Your task to perform on an android device: Search for sushi restaurants on Maps Image 0: 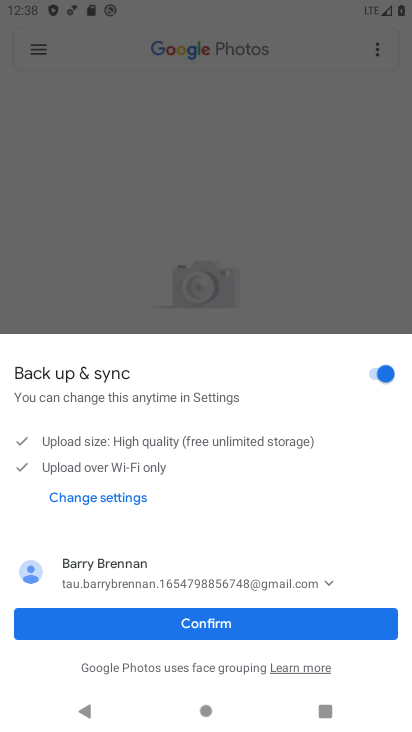
Step 0: press home button
Your task to perform on an android device: Search for sushi restaurants on Maps Image 1: 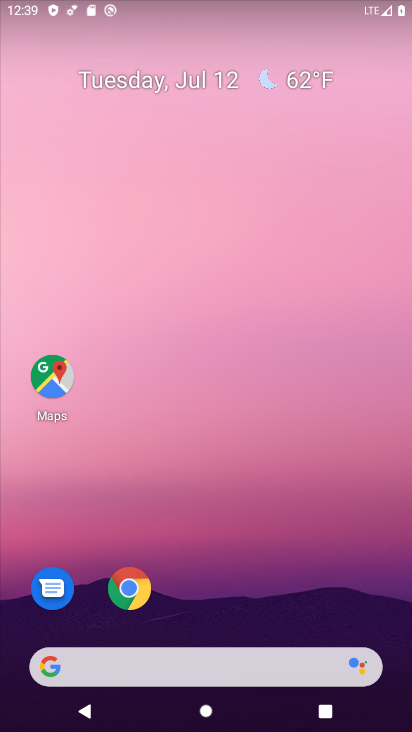
Step 1: click (46, 385)
Your task to perform on an android device: Search for sushi restaurants on Maps Image 2: 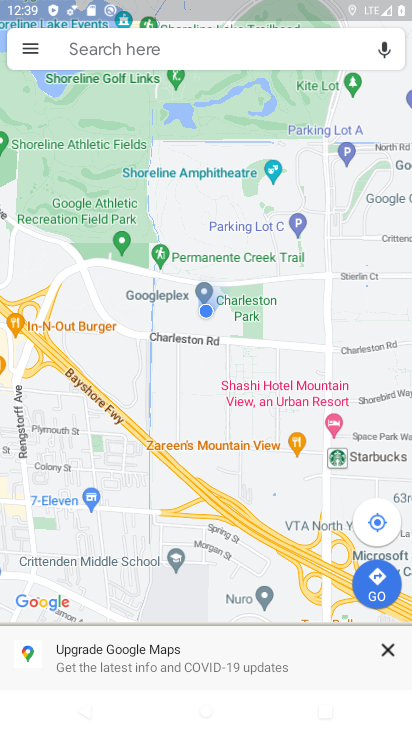
Step 2: click (143, 54)
Your task to perform on an android device: Search for sushi restaurants on Maps Image 3: 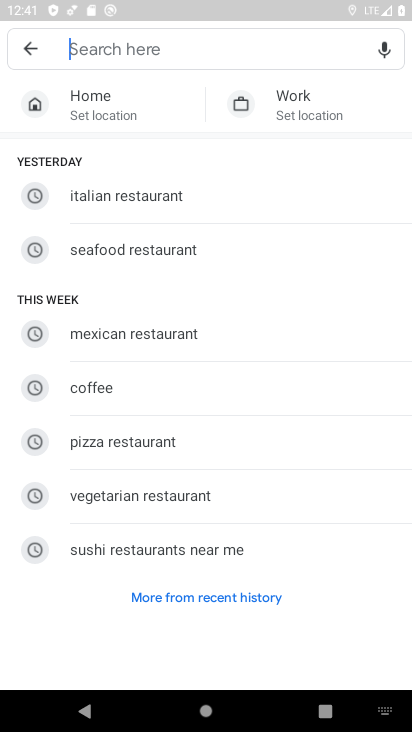
Step 3: type "sushi rest"
Your task to perform on an android device: Search for sushi restaurants on Maps Image 4: 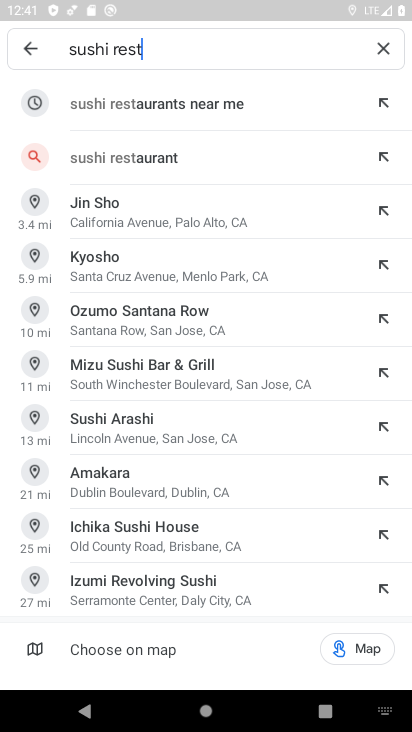
Step 4: click (219, 164)
Your task to perform on an android device: Search for sushi restaurants on Maps Image 5: 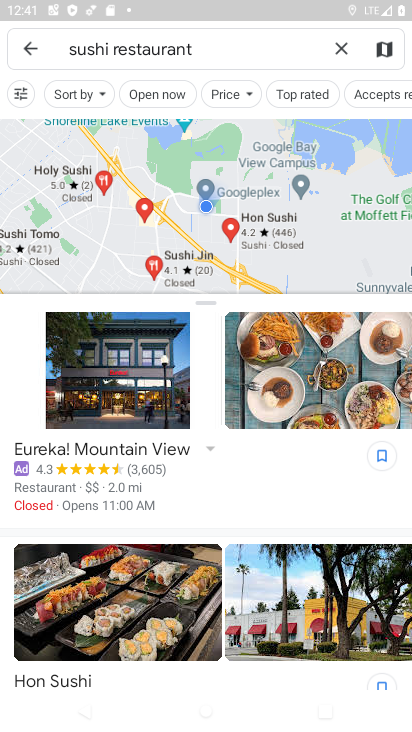
Step 5: task complete